Your task to perform on an android device: Open the calendar app, open the side menu, and click the "Day" option Image 0: 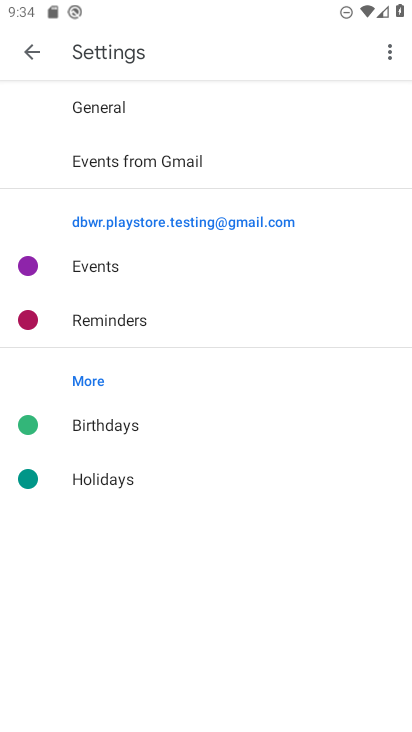
Step 0: press home button
Your task to perform on an android device: Open the calendar app, open the side menu, and click the "Day" option Image 1: 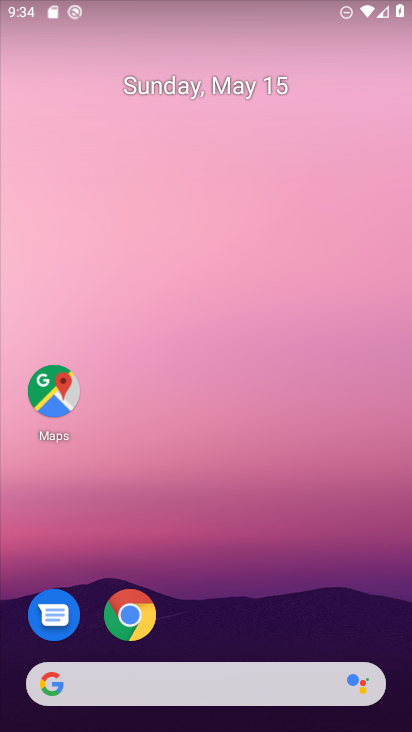
Step 1: drag from (166, 645) to (285, 93)
Your task to perform on an android device: Open the calendar app, open the side menu, and click the "Day" option Image 2: 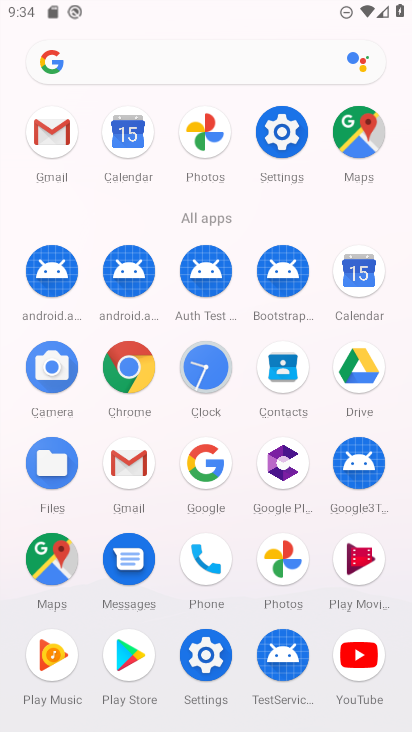
Step 2: click (354, 281)
Your task to perform on an android device: Open the calendar app, open the side menu, and click the "Day" option Image 3: 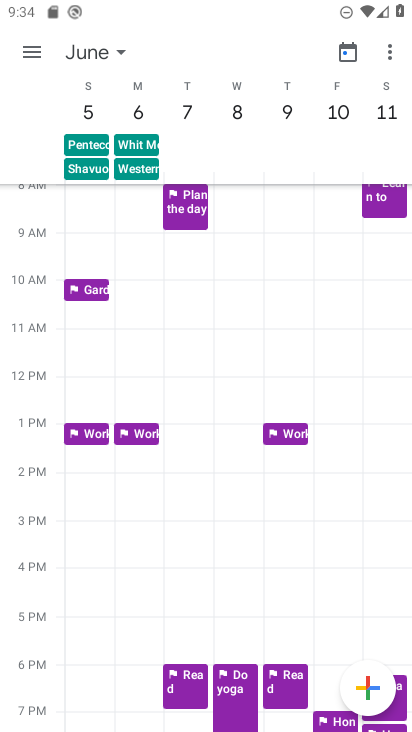
Step 3: click (33, 54)
Your task to perform on an android device: Open the calendar app, open the side menu, and click the "Day" option Image 4: 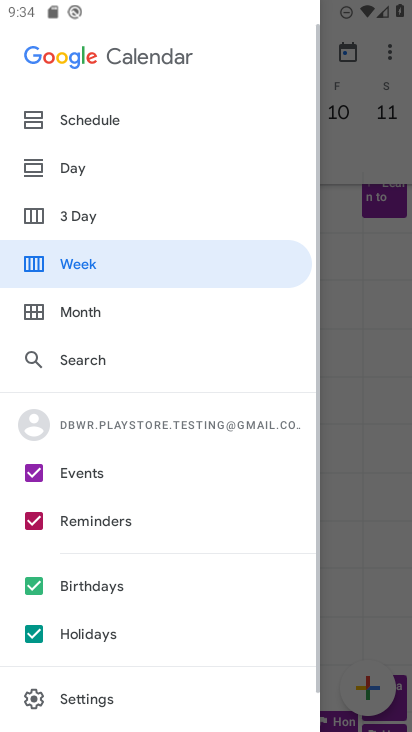
Step 4: click (94, 169)
Your task to perform on an android device: Open the calendar app, open the side menu, and click the "Day" option Image 5: 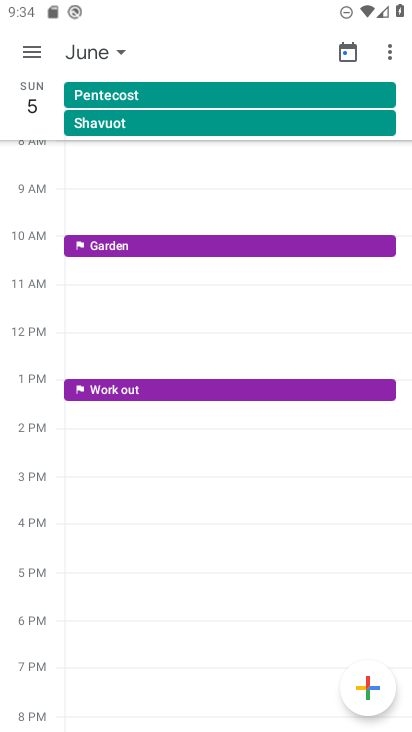
Step 5: task complete